Your task to perform on an android device: change the clock display to digital Image 0: 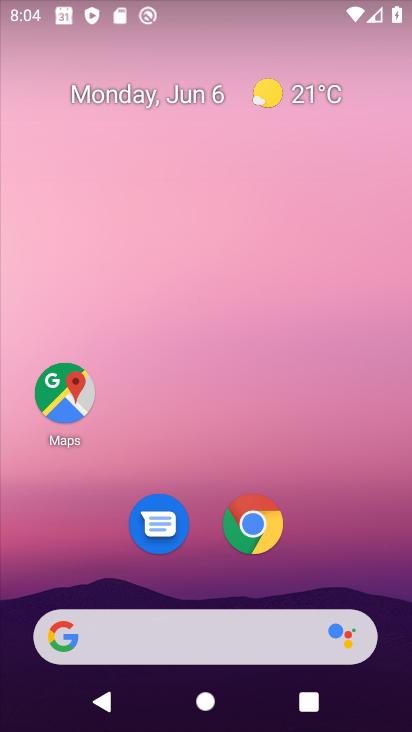
Step 0: drag from (221, 436) to (254, 9)
Your task to perform on an android device: change the clock display to digital Image 1: 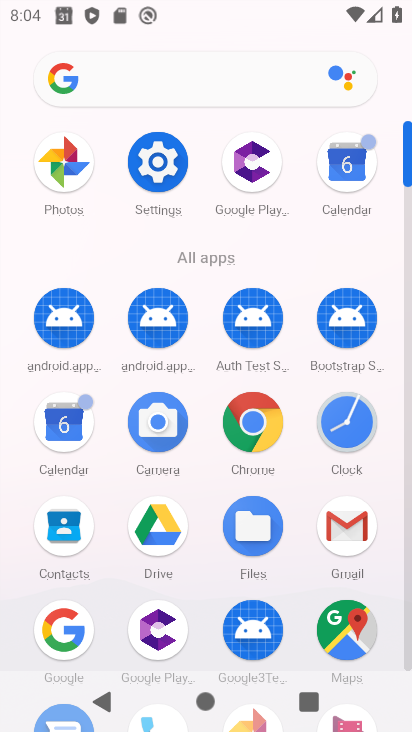
Step 1: click (353, 407)
Your task to perform on an android device: change the clock display to digital Image 2: 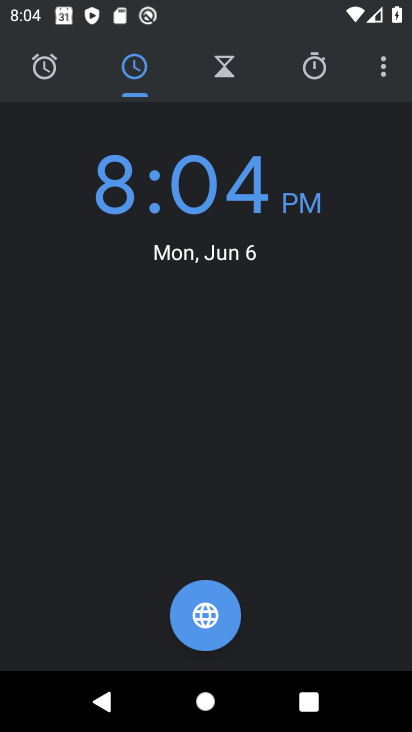
Step 2: click (381, 79)
Your task to perform on an android device: change the clock display to digital Image 3: 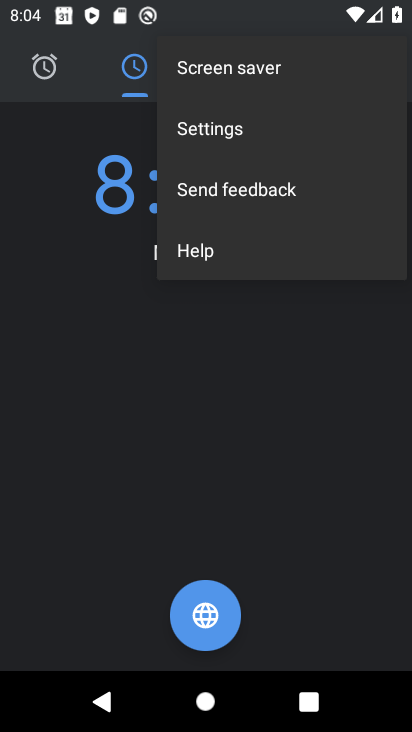
Step 3: click (306, 137)
Your task to perform on an android device: change the clock display to digital Image 4: 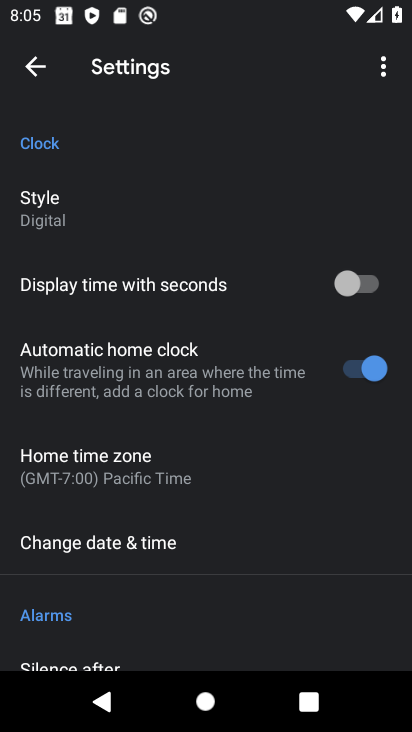
Step 4: click (36, 69)
Your task to perform on an android device: change the clock display to digital Image 5: 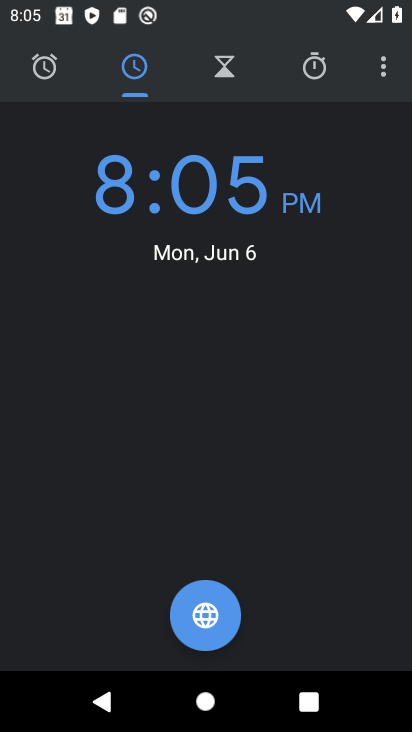
Step 5: task complete